Your task to perform on an android device: open the mobile data screen to see how much data has been used Image 0: 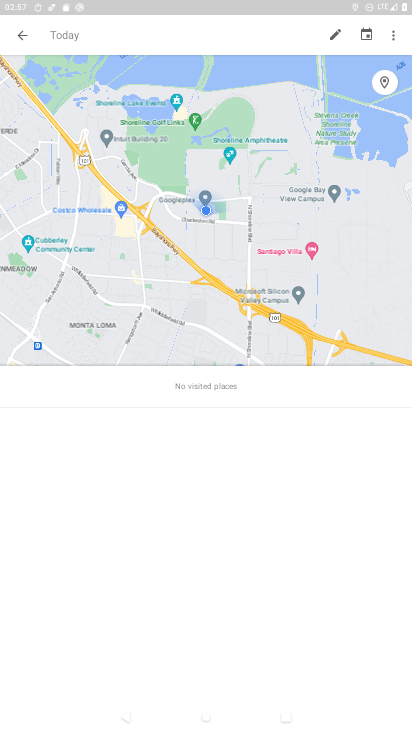
Step 0: press home button
Your task to perform on an android device: open the mobile data screen to see how much data has been used Image 1: 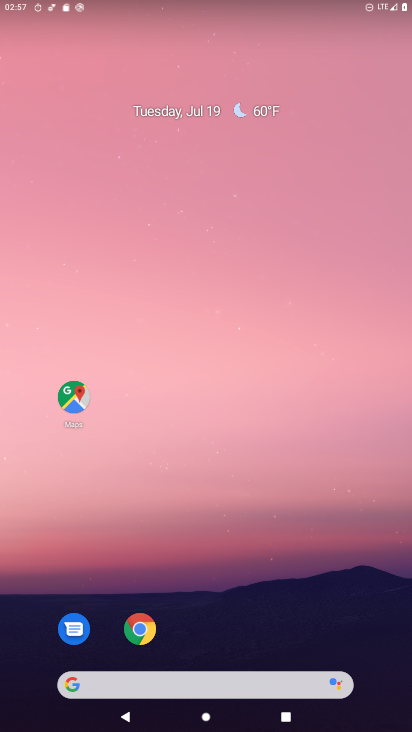
Step 1: drag from (207, 620) to (174, 196)
Your task to perform on an android device: open the mobile data screen to see how much data has been used Image 2: 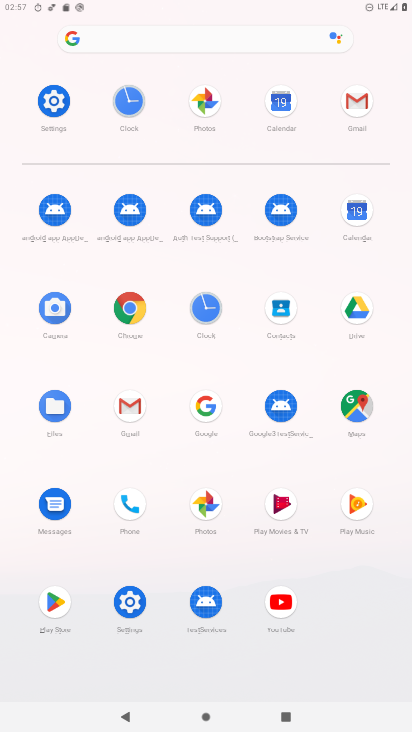
Step 2: click (54, 103)
Your task to perform on an android device: open the mobile data screen to see how much data has been used Image 3: 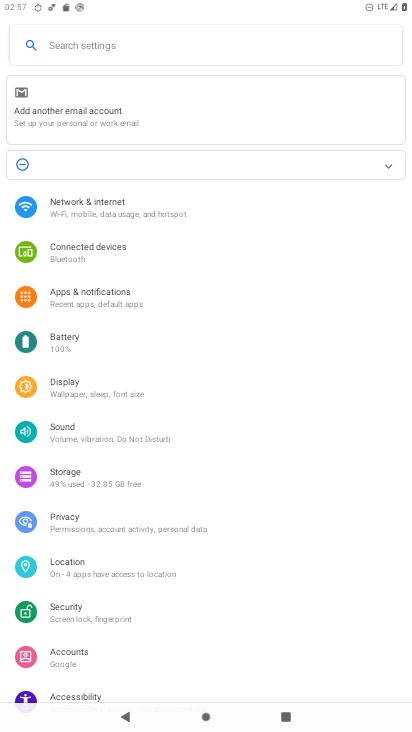
Step 3: click (105, 200)
Your task to perform on an android device: open the mobile data screen to see how much data has been used Image 4: 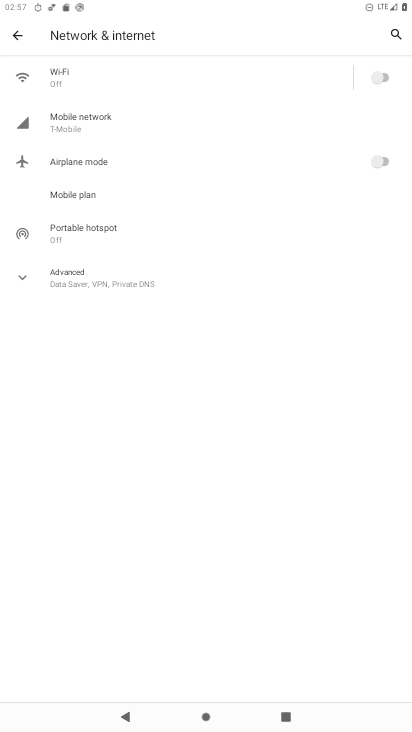
Step 4: click (88, 136)
Your task to perform on an android device: open the mobile data screen to see how much data has been used Image 5: 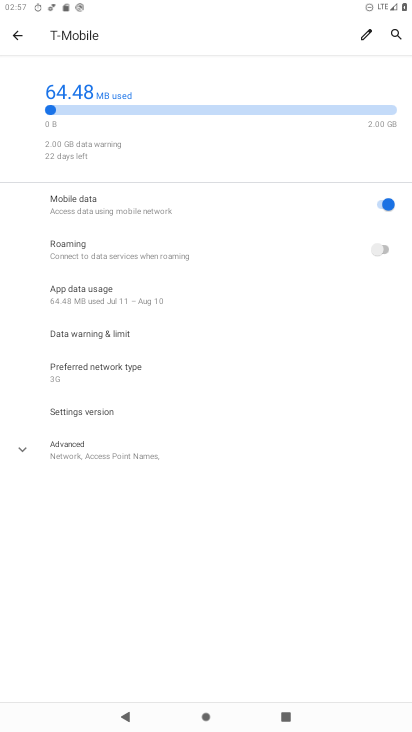
Step 5: click (131, 295)
Your task to perform on an android device: open the mobile data screen to see how much data has been used Image 6: 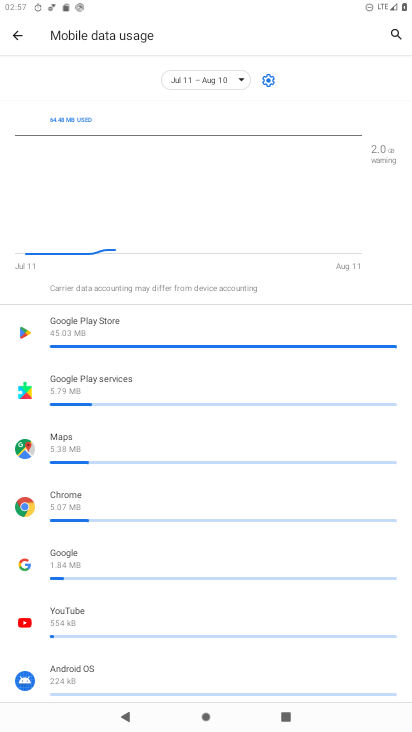
Step 6: task complete